Your task to perform on an android device: Open privacy settings Image 0: 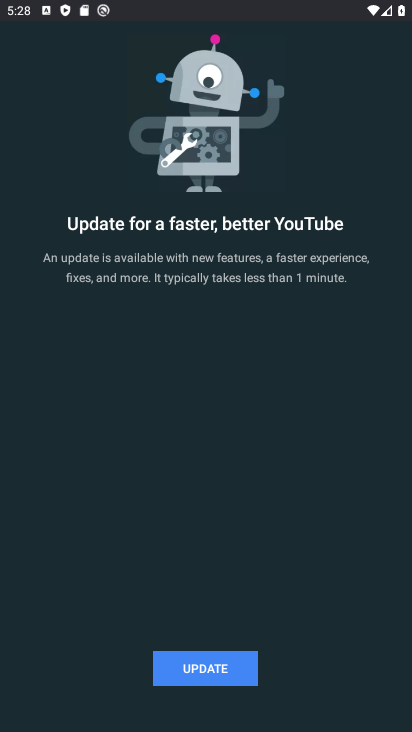
Step 0: press home button
Your task to perform on an android device: Open privacy settings Image 1: 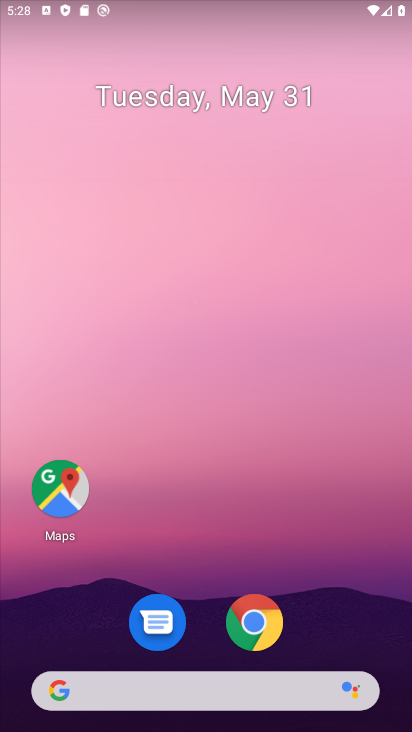
Step 1: drag from (375, 647) to (360, 35)
Your task to perform on an android device: Open privacy settings Image 2: 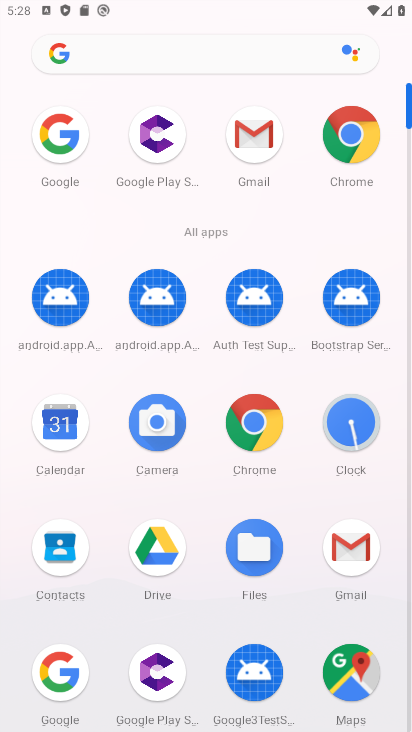
Step 2: drag from (294, 666) to (288, 172)
Your task to perform on an android device: Open privacy settings Image 3: 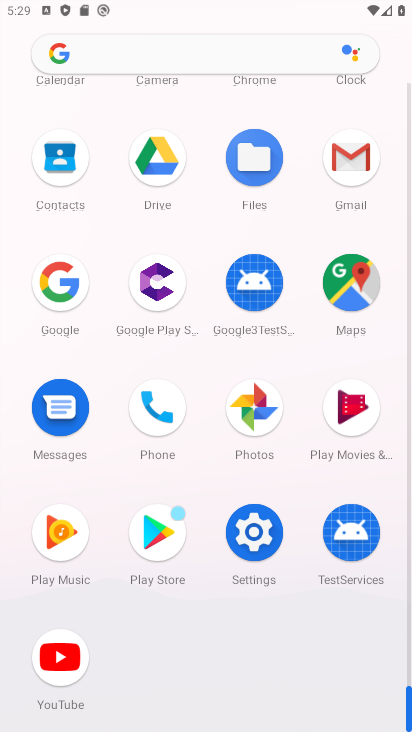
Step 3: click (268, 545)
Your task to perform on an android device: Open privacy settings Image 4: 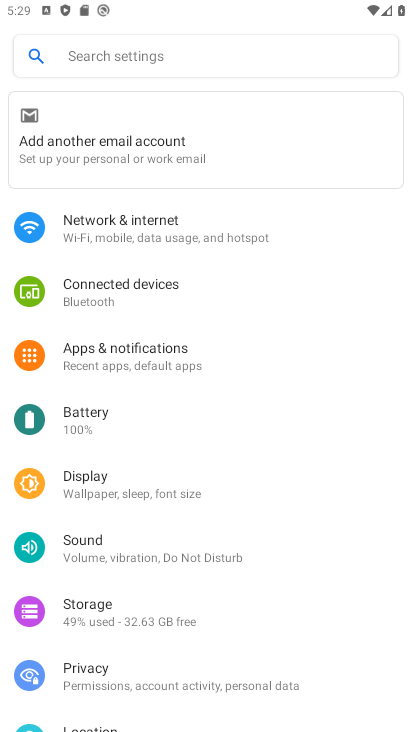
Step 4: drag from (166, 586) to (201, 323)
Your task to perform on an android device: Open privacy settings Image 5: 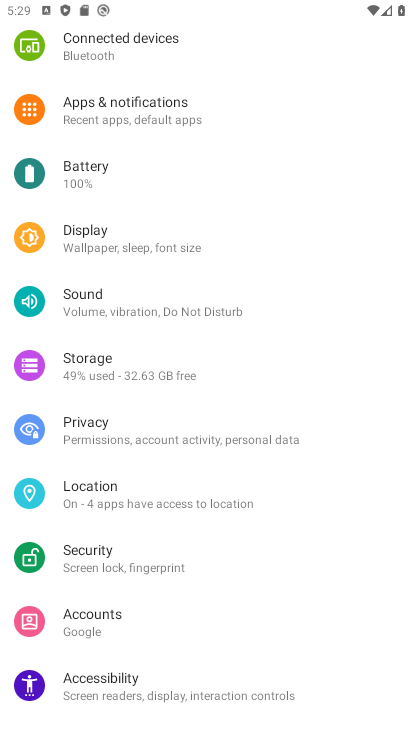
Step 5: click (172, 424)
Your task to perform on an android device: Open privacy settings Image 6: 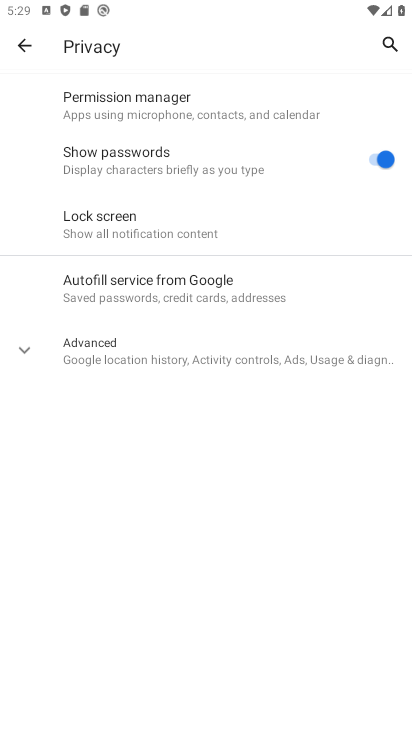
Step 6: task complete